Your task to perform on an android device: Open display settings Image 0: 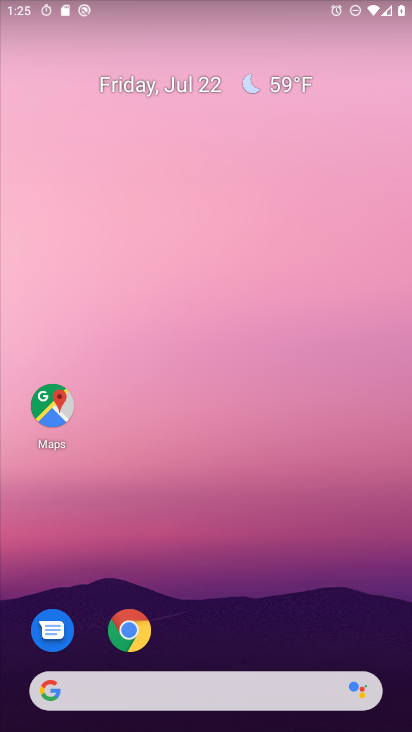
Step 0: press home button
Your task to perform on an android device: Open display settings Image 1: 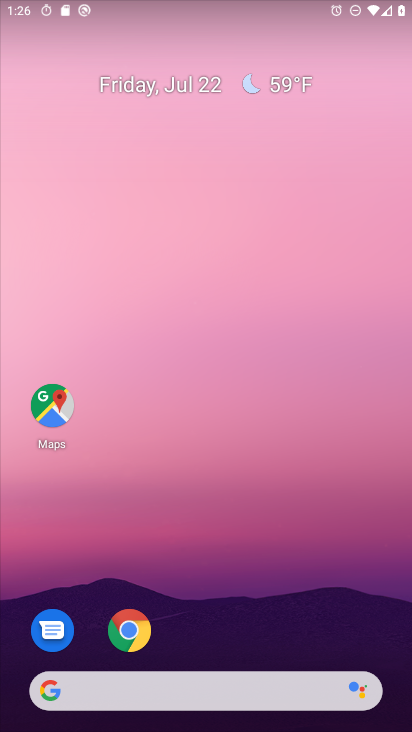
Step 1: drag from (232, 560) to (258, 3)
Your task to perform on an android device: Open display settings Image 2: 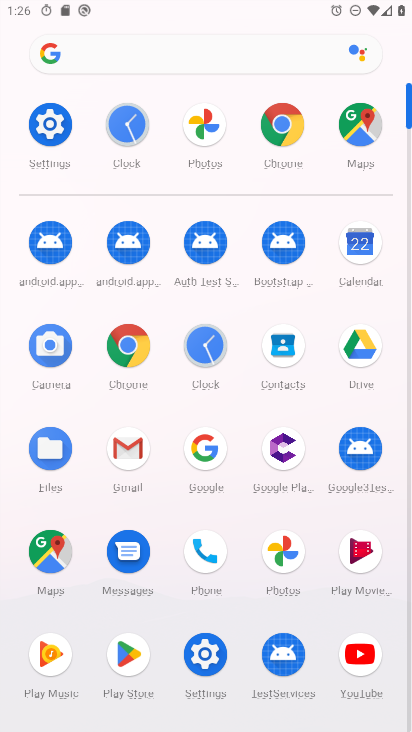
Step 2: click (40, 128)
Your task to perform on an android device: Open display settings Image 3: 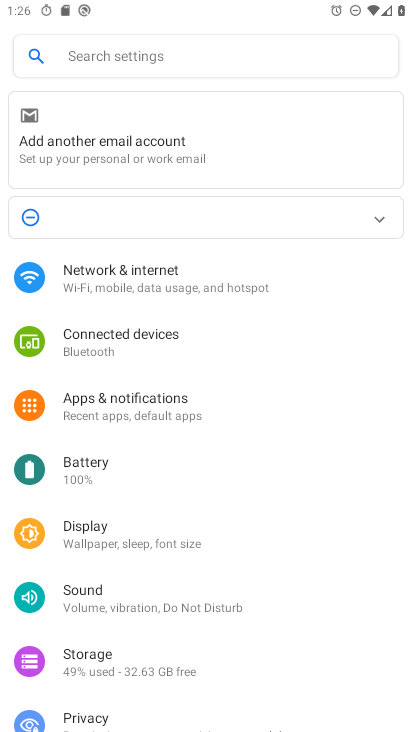
Step 3: click (79, 535)
Your task to perform on an android device: Open display settings Image 4: 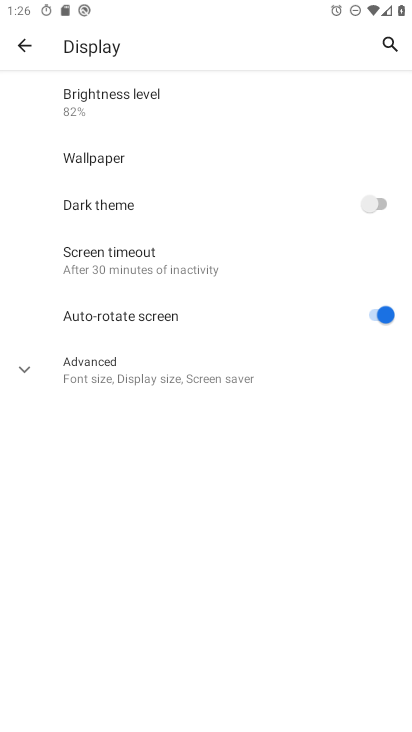
Step 4: task complete